Your task to perform on an android device: Go to sound settings Image 0: 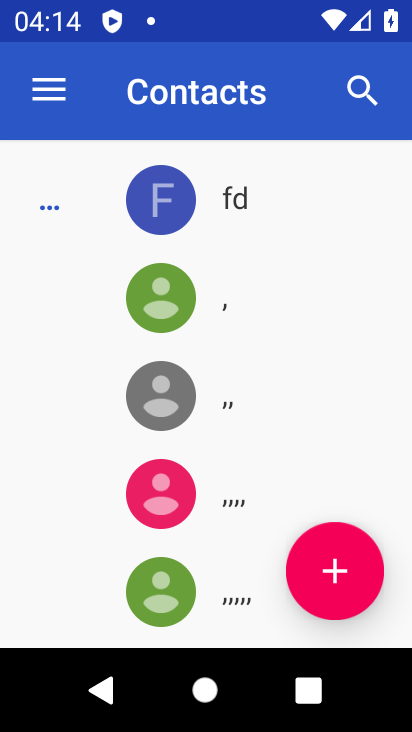
Step 0: press home button
Your task to perform on an android device: Go to sound settings Image 1: 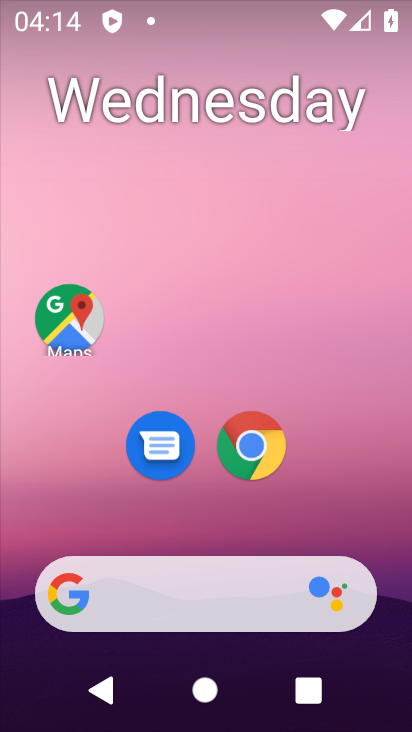
Step 1: drag from (192, 522) to (196, 117)
Your task to perform on an android device: Go to sound settings Image 2: 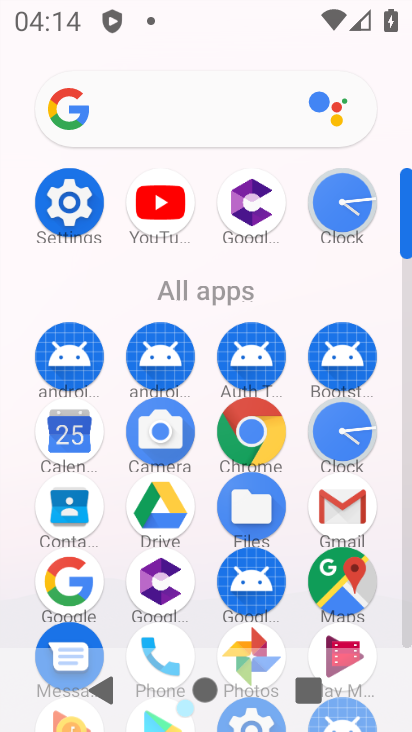
Step 2: click (61, 211)
Your task to perform on an android device: Go to sound settings Image 3: 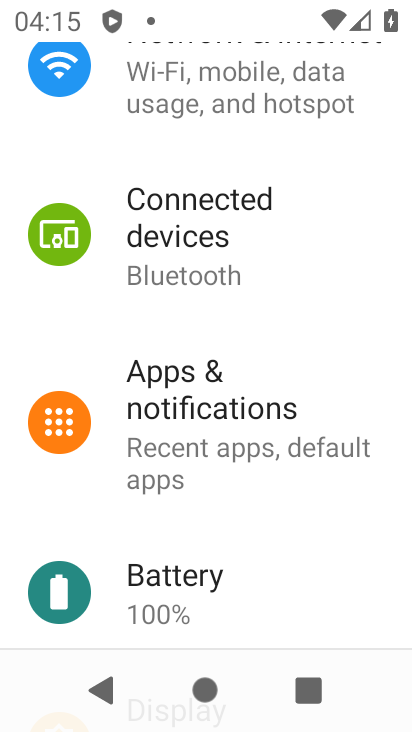
Step 3: drag from (201, 137) to (209, 596)
Your task to perform on an android device: Go to sound settings Image 4: 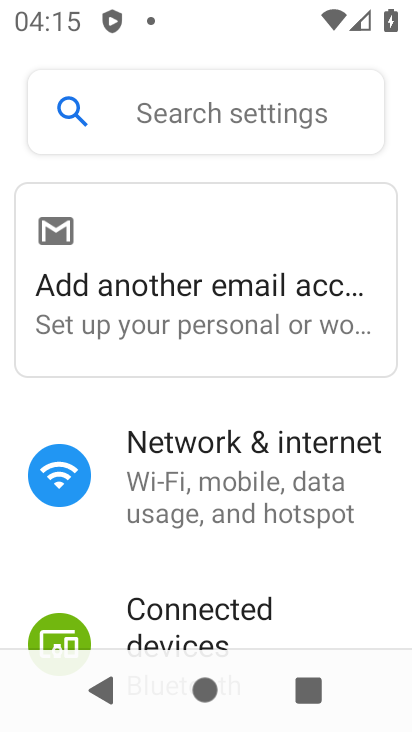
Step 4: drag from (196, 590) to (183, 79)
Your task to perform on an android device: Go to sound settings Image 5: 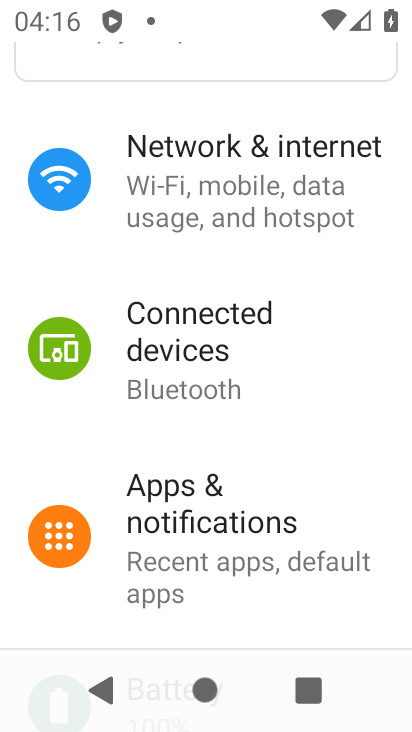
Step 5: drag from (129, 479) to (401, 174)
Your task to perform on an android device: Go to sound settings Image 6: 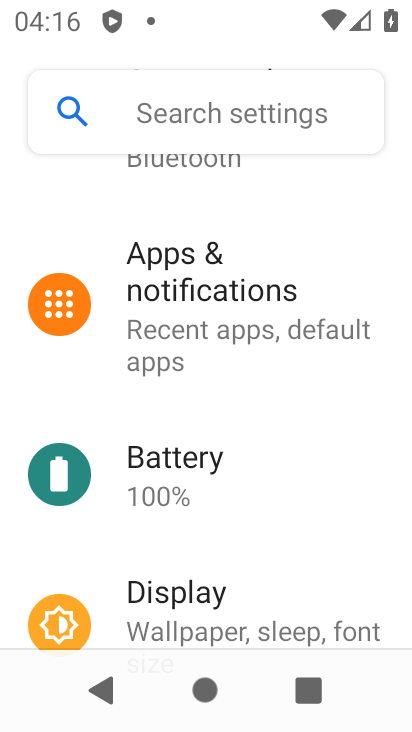
Step 6: drag from (204, 533) to (234, 111)
Your task to perform on an android device: Go to sound settings Image 7: 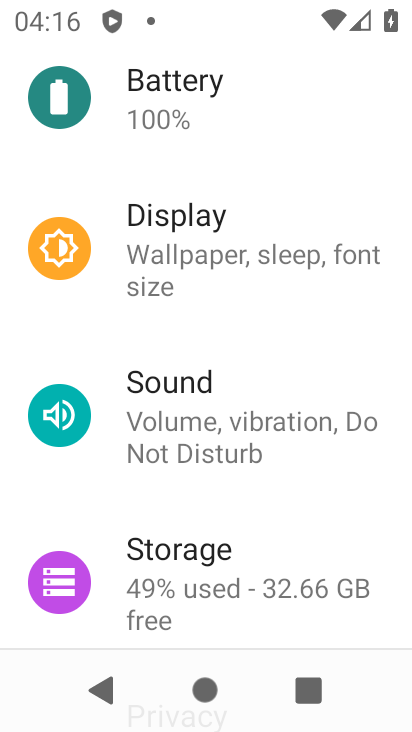
Step 7: click (184, 403)
Your task to perform on an android device: Go to sound settings Image 8: 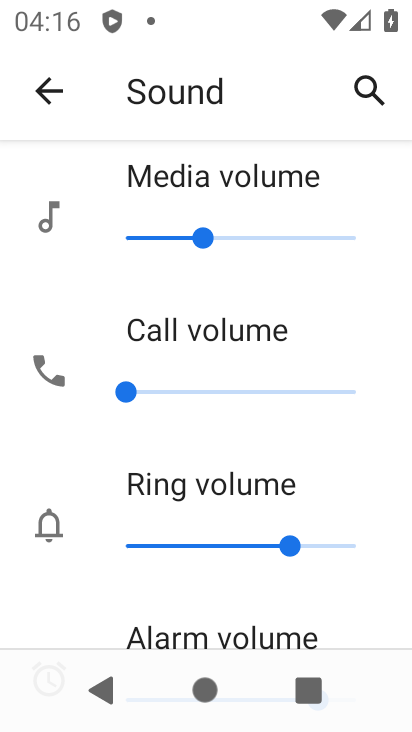
Step 8: task complete